Your task to perform on an android device: Open eBay Image 0: 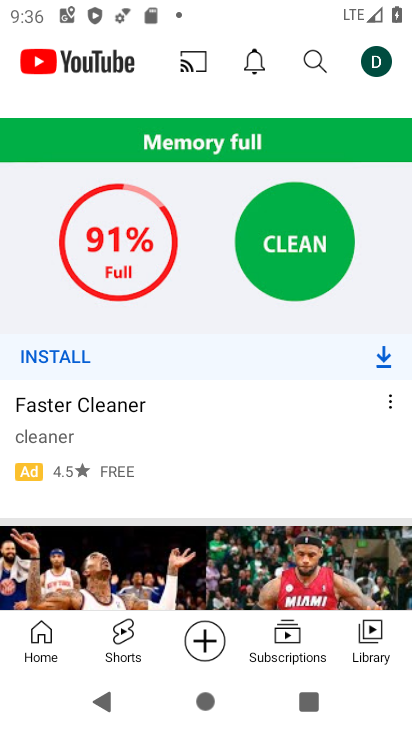
Step 0: press home button
Your task to perform on an android device: Open eBay Image 1: 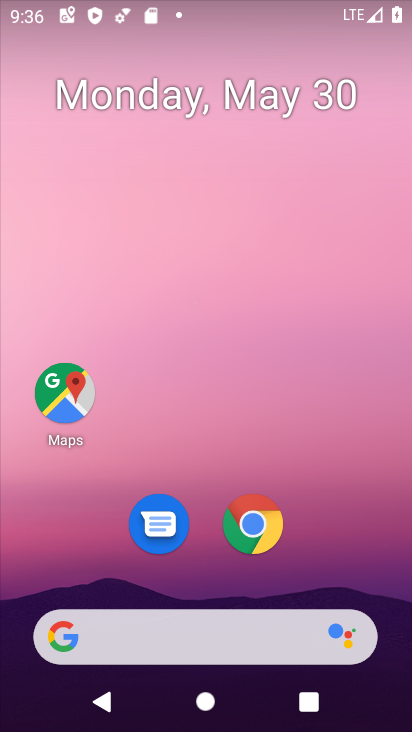
Step 1: click (257, 627)
Your task to perform on an android device: Open eBay Image 2: 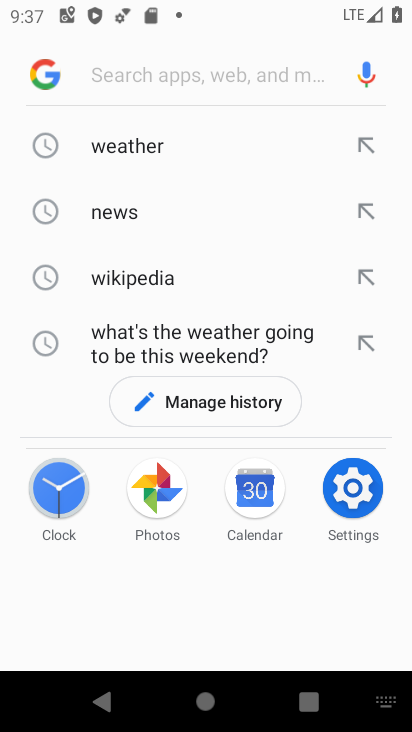
Step 2: type "ebay"
Your task to perform on an android device: Open eBay Image 3: 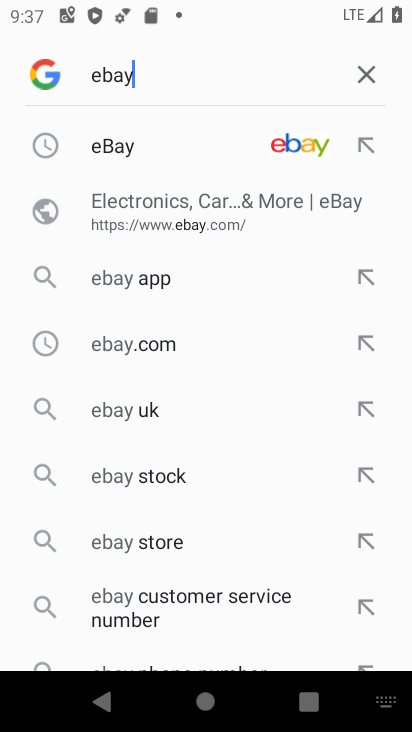
Step 3: click (92, 141)
Your task to perform on an android device: Open eBay Image 4: 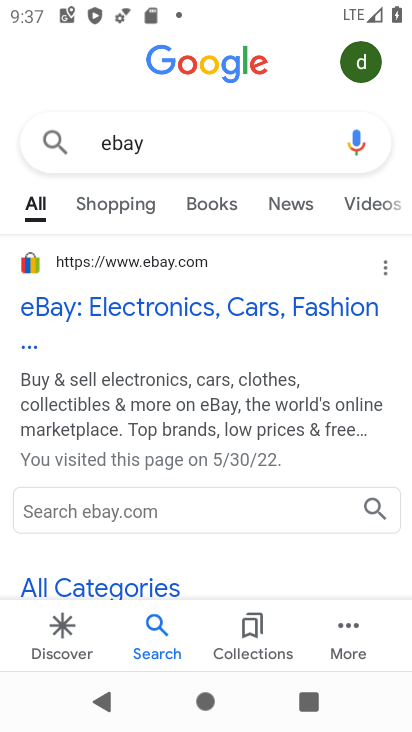
Step 4: click (58, 307)
Your task to perform on an android device: Open eBay Image 5: 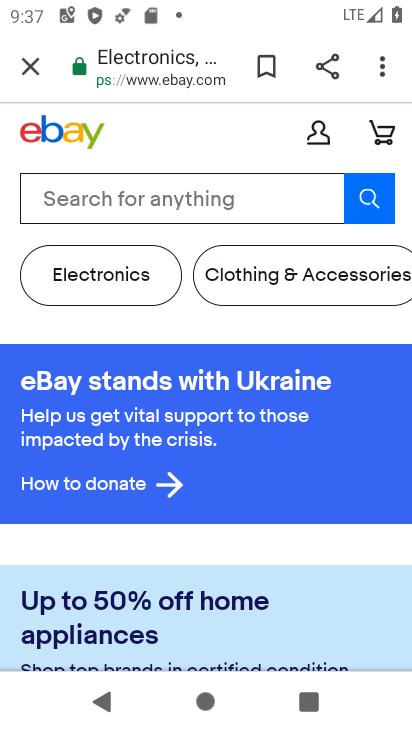
Step 5: task complete